Your task to perform on an android device: Go to calendar. Show me events next week Image 0: 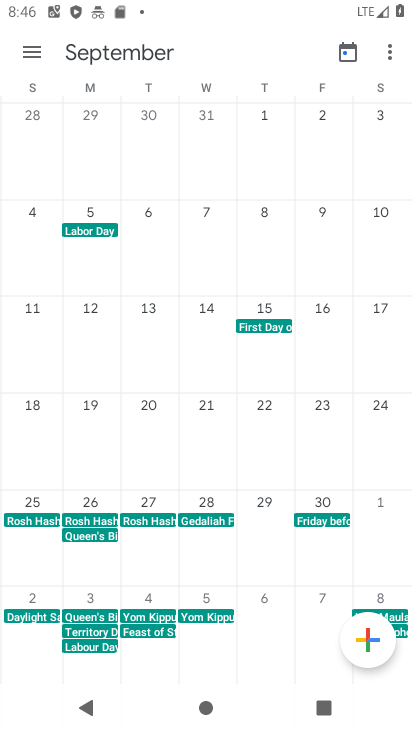
Step 0: click (32, 46)
Your task to perform on an android device: Go to calendar. Show me events next week Image 1: 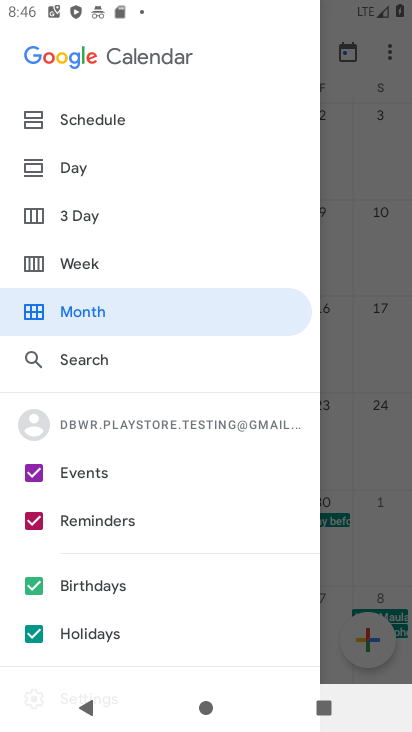
Step 1: click (79, 256)
Your task to perform on an android device: Go to calendar. Show me events next week Image 2: 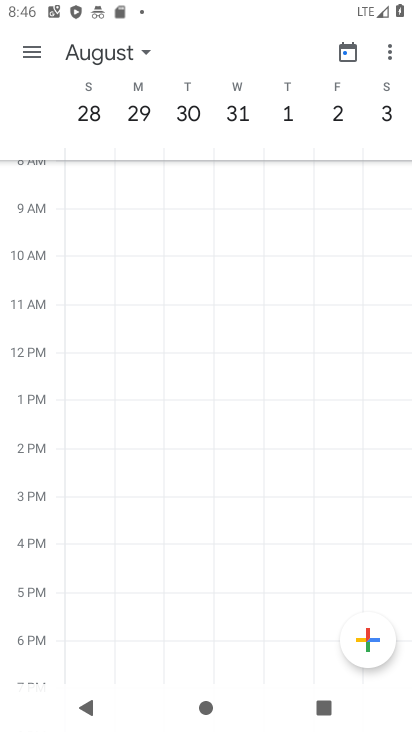
Step 2: click (143, 51)
Your task to perform on an android device: Go to calendar. Show me events next week Image 3: 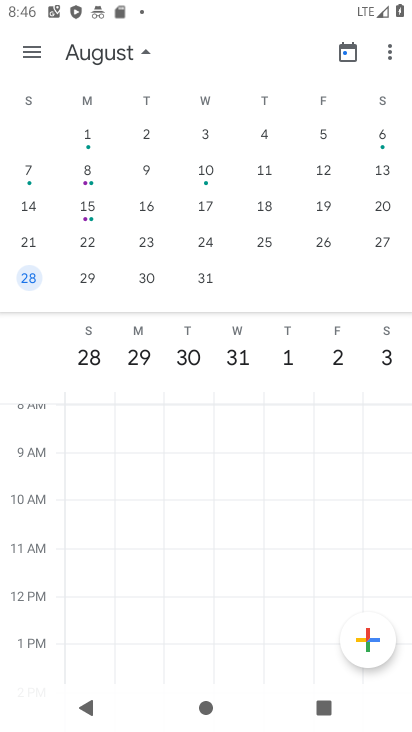
Step 3: click (145, 56)
Your task to perform on an android device: Go to calendar. Show me events next week Image 4: 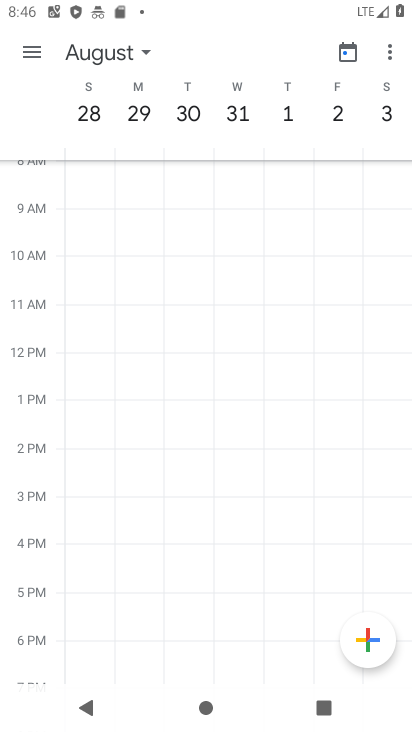
Step 4: drag from (74, 355) to (412, 212)
Your task to perform on an android device: Go to calendar. Show me events next week Image 5: 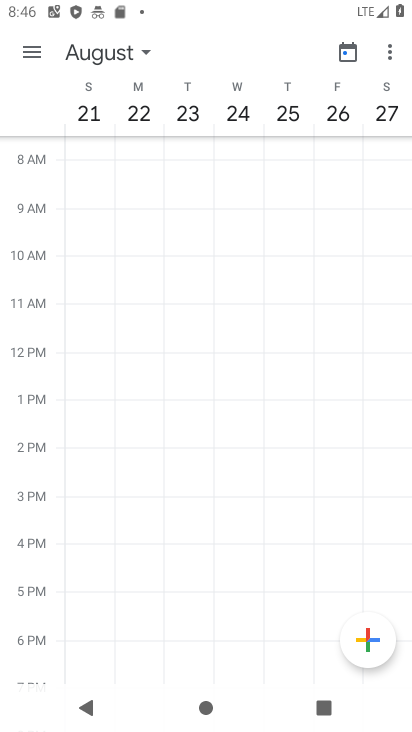
Step 5: click (35, 54)
Your task to perform on an android device: Go to calendar. Show me events next week Image 6: 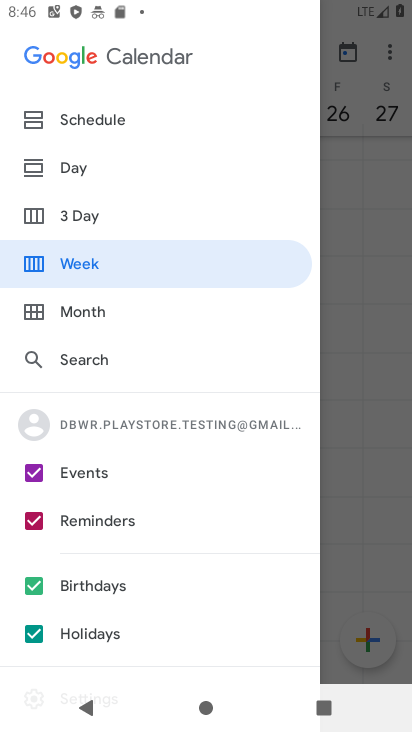
Step 6: click (114, 311)
Your task to perform on an android device: Go to calendar. Show me events next week Image 7: 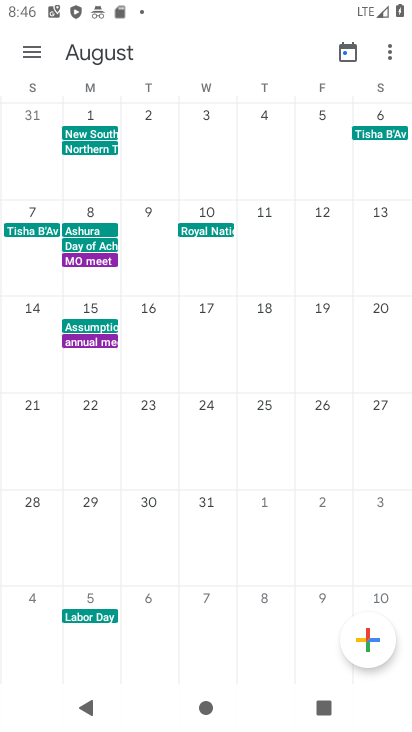
Step 7: task complete